Your task to perform on an android device: toggle show notifications on the lock screen Image 0: 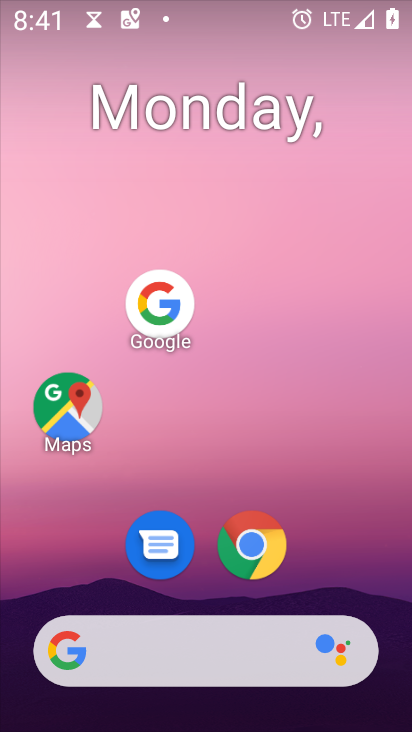
Step 0: drag from (218, 655) to (331, 130)
Your task to perform on an android device: toggle show notifications on the lock screen Image 1: 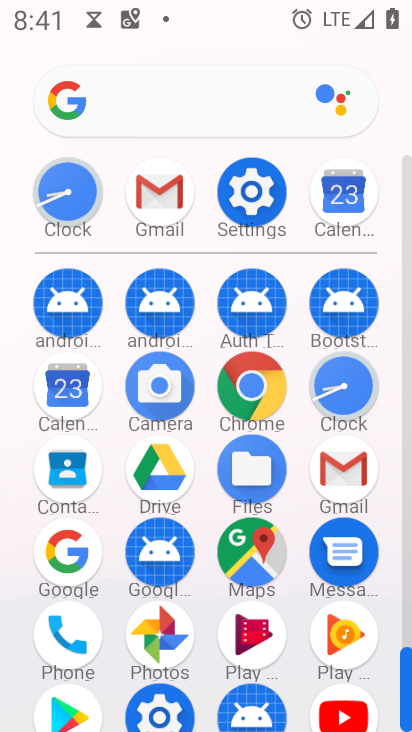
Step 1: click (258, 187)
Your task to perform on an android device: toggle show notifications on the lock screen Image 2: 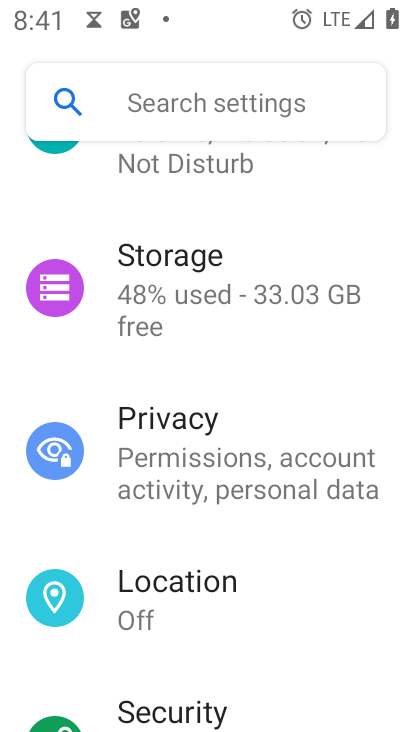
Step 2: drag from (326, 217) to (267, 580)
Your task to perform on an android device: toggle show notifications on the lock screen Image 3: 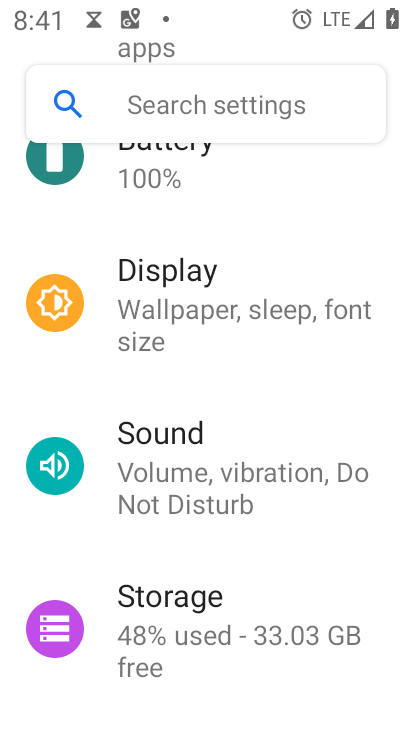
Step 3: drag from (292, 219) to (279, 638)
Your task to perform on an android device: toggle show notifications on the lock screen Image 4: 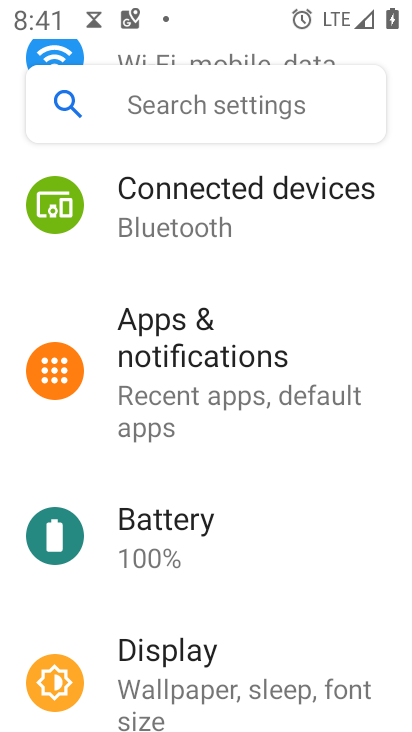
Step 4: click (185, 347)
Your task to perform on an android device: toggle show notifications on the lock screen Image 5: 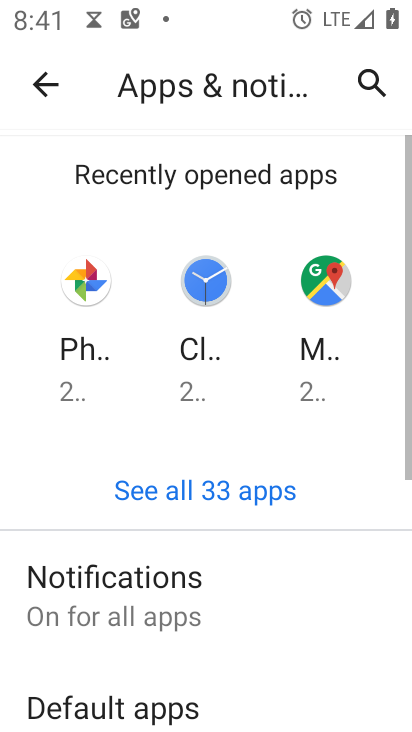
Step 5: click (162, 610)
Your task to perform on an android device: toggle show notifications on the lock screen Image 6: 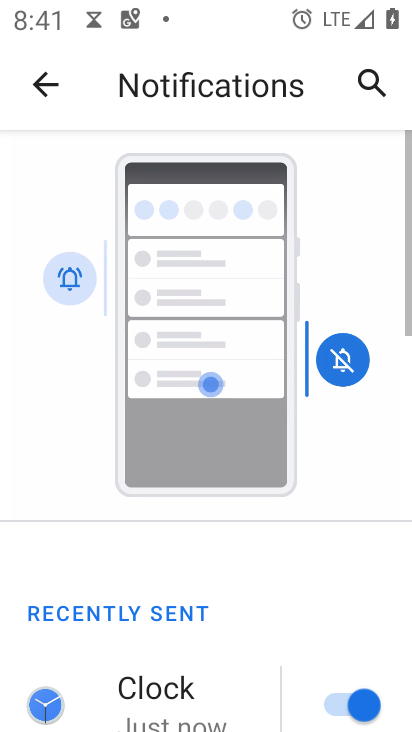
Step 6: drag from (234, 625) to (367, 146)
Your task to perform on an android device: toggle show notifications on the lock screen Image 7: 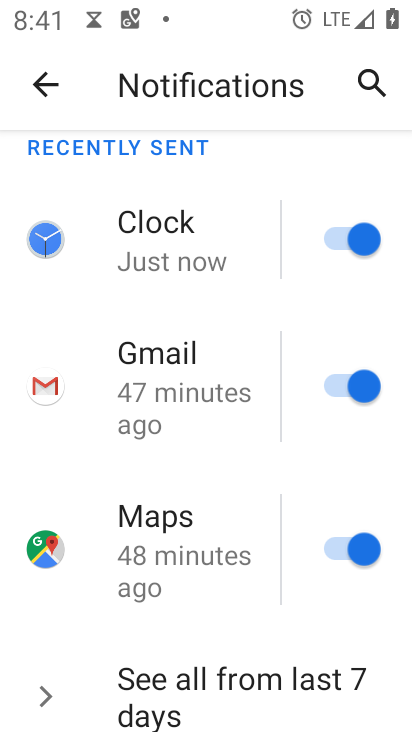
Step 7: drag from (225, 629) to (308, 214)
Your task to perform on an android device: toggle show notifications on the lock screen Image 8: 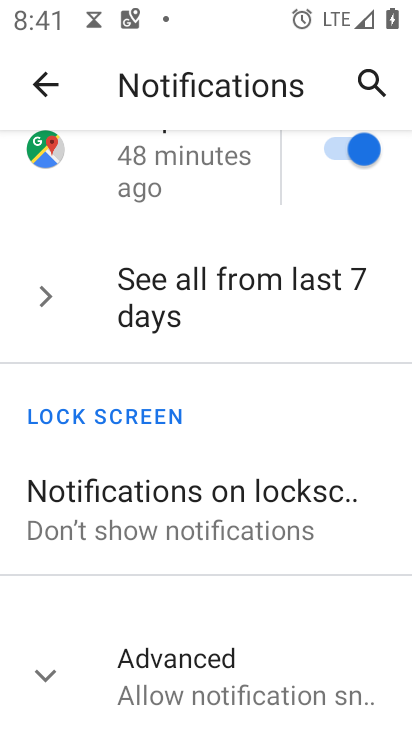
Step 8: click (179, 508)
Your task to perform on an android device: toggle show notifications on the lock screen Image 9: 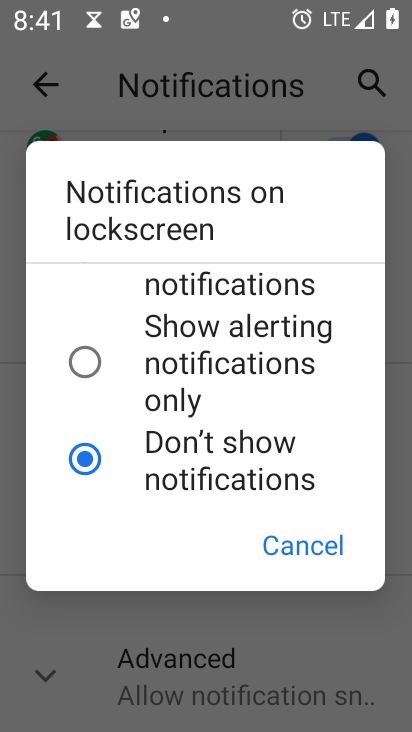
Step 9: drag from (145, 315) to (133, 523)
Your task to perform on an android device: toggle show notifications on the lock screen Image 10: 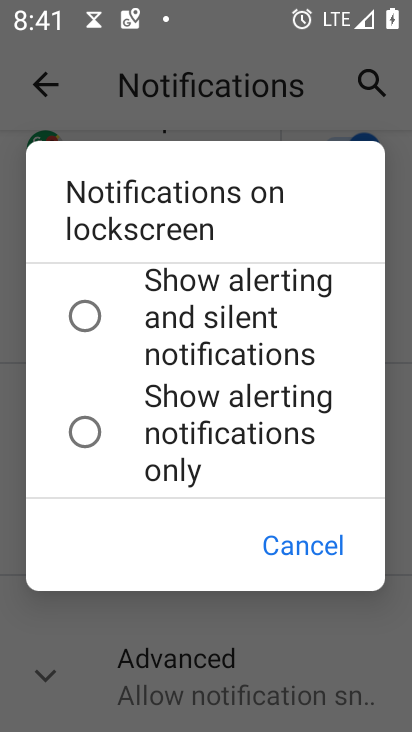
Step 10: click (78, 316)
Your task to perform on an android device: toggle show notifications on the lock screen Image 11: 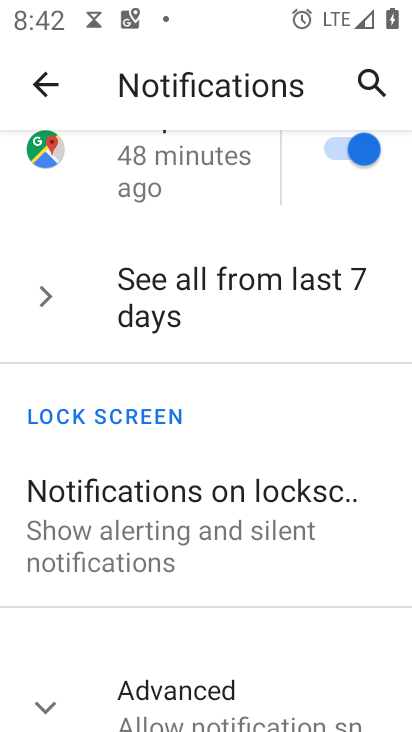
Step 11: task complete